Your task to perform on an android device: turn pop-ups on in chrome Image 0: 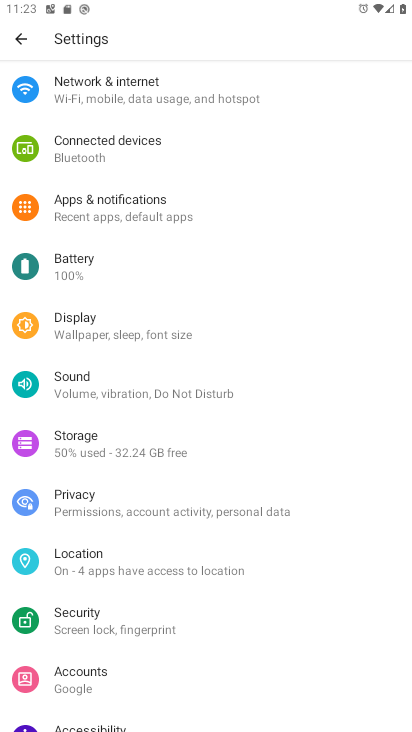
Step 0: press home button
Your task to perform on an android device: turn pop-ups on in chrome Image 1: 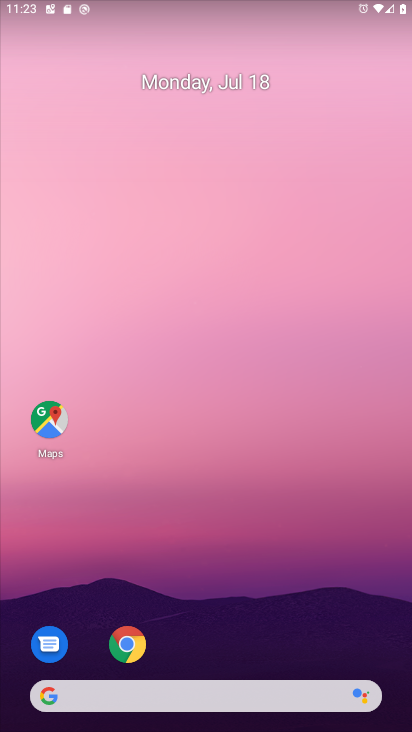
Step 1: click (145, 658)
Your task to perform on an android device: turn pop-ups on in chrome Image 2: 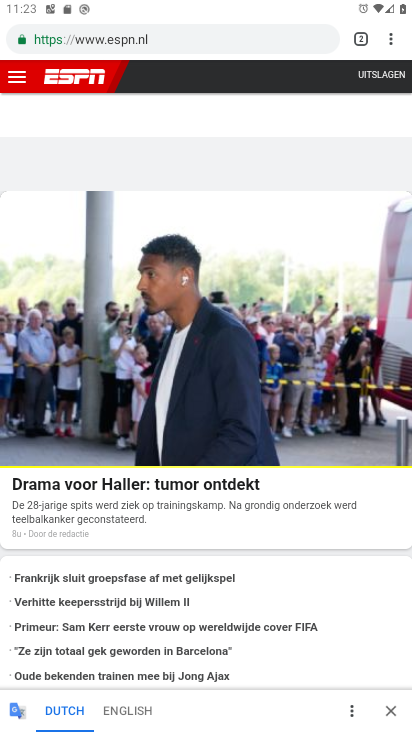
Step 2: click (385, 35)
Your task to perform on an android device: turn pop-ups on in chrome Image 3: 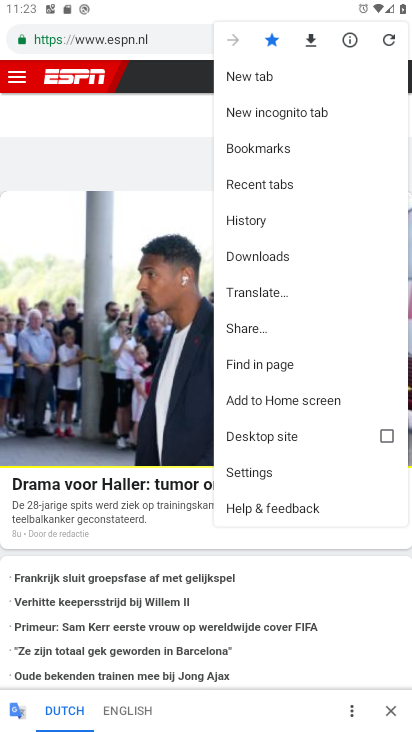
Step 3: click (261, 480)
Your task to perform on an android device: turn pop-ups on in chrome Image 4: 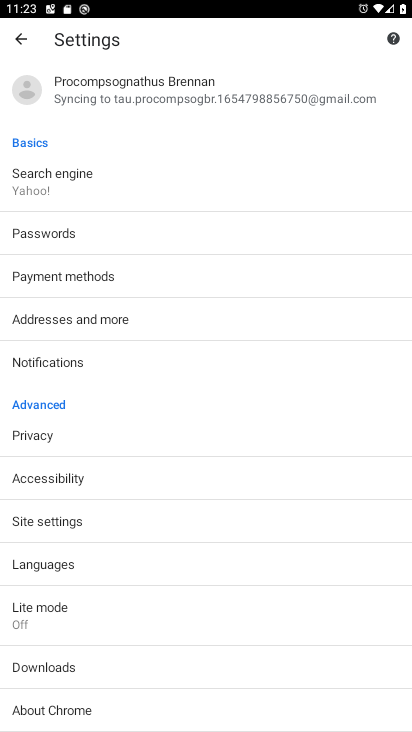
Step 4: task complete